Your task to perform on an android device: turn smart compose on in the gmail app Image 0: 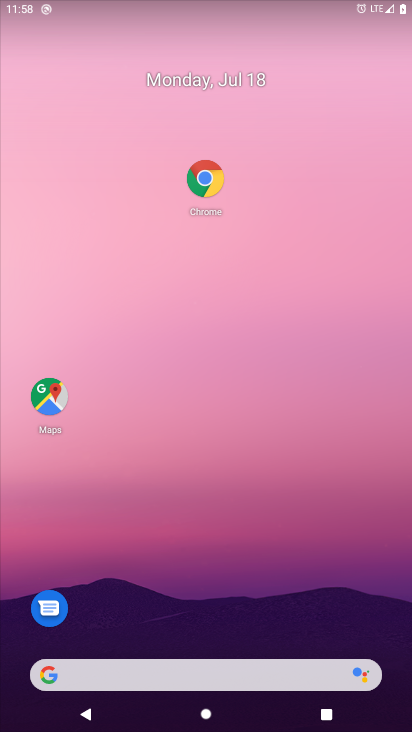
Step 0: drag from (12, 693) to (286, 110)
Your task to perform on an android device: turn smart compose on in the gmail app Image 1: 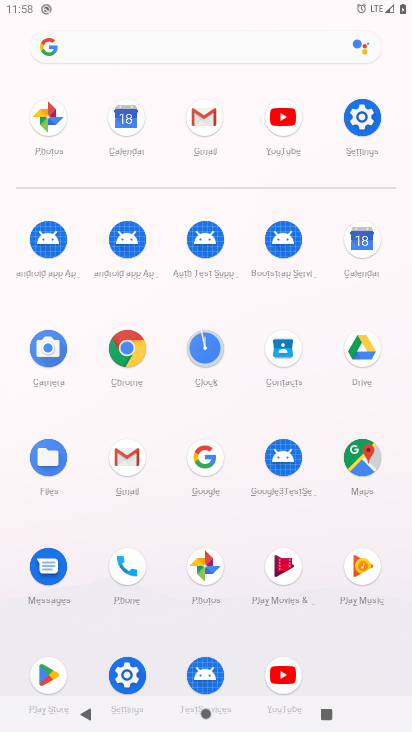
Step 1: click (115, 448)
Your task to perform on an android device: turn smart compose on in the gmail app Image 2: 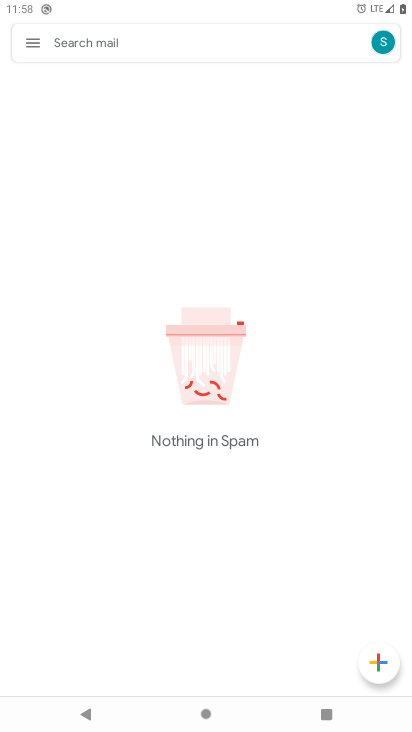
Step 2: click (41, 39)
Your task to perform on an android device: turn smart compose on in the gmail app Image 3: 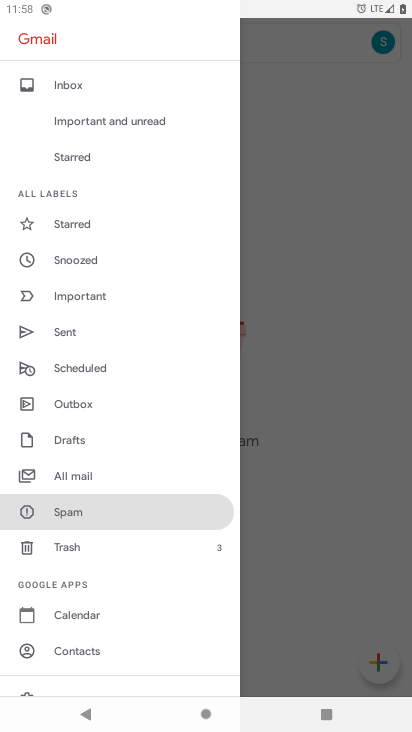
Step 3: drag from (109, 624) to (183, 251)
Your task to perform on an android device: turn smart compose on in the gmail app Image 4: 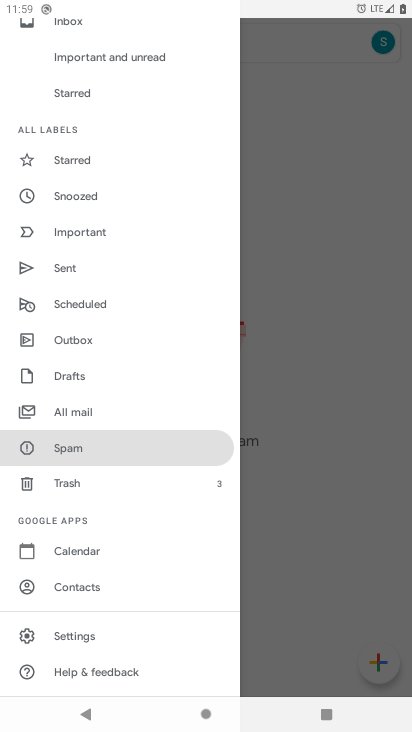
Step 4: click (61, 645)
Your task to perform on an android device: turn smart compose on in the gmail app Image 5: 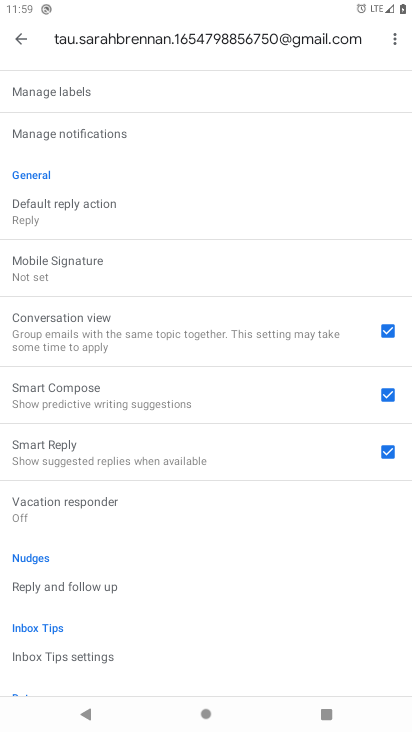
Step 5: task complete